Your task to perform on an android device: When is my next appointment? Image 0: 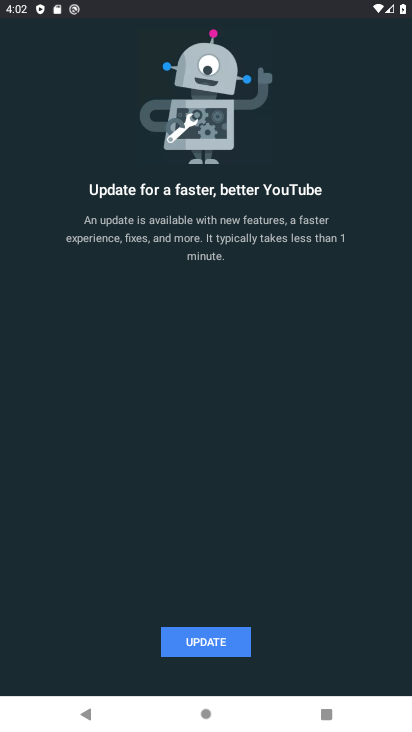
Step 0: drag from (136, 512) to (161, 147)
Your task to perform on an android device: When is my next appointment? Image 1: 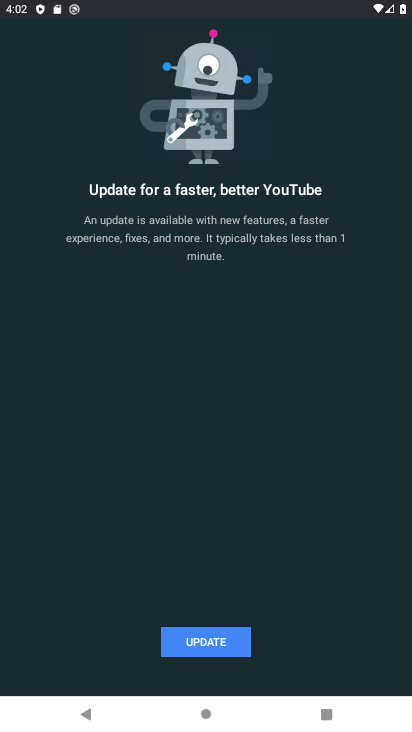
Step 1: press home button
Your task to perform on an android device: When is my next appointment? Image 2: 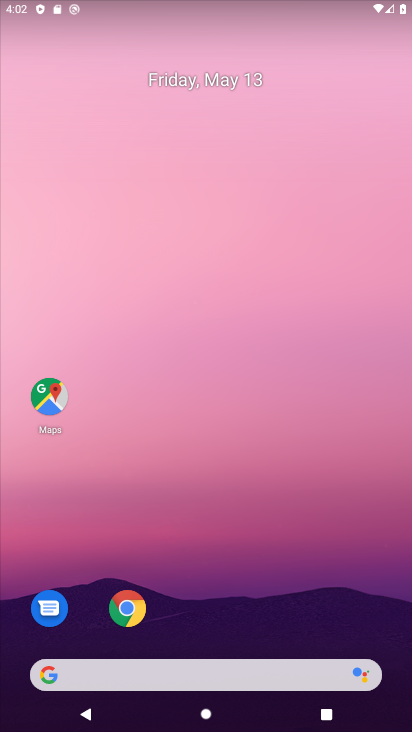
Step 2: drag from (56, 617) to (86, 43)
Your task to perform on an android device: When is my next appointment? Image 3: 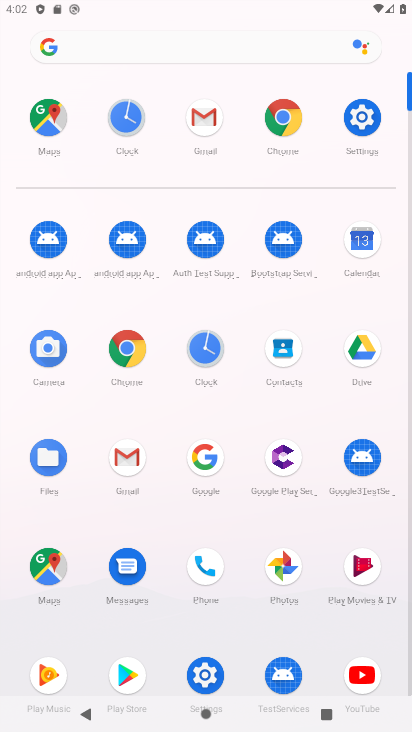
Step 3: click (371, 237)
Your task to perform on an android device: When is my next appointment? Image 4: 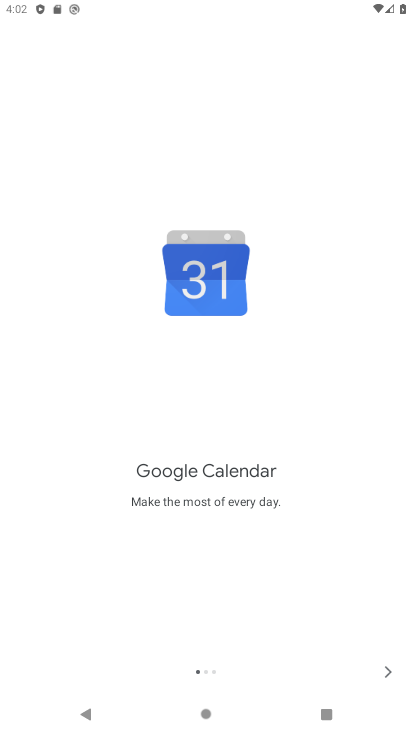
Step 4: click (389, 668)
Your task to perform on an android device: When is my next appointment? Image 5: 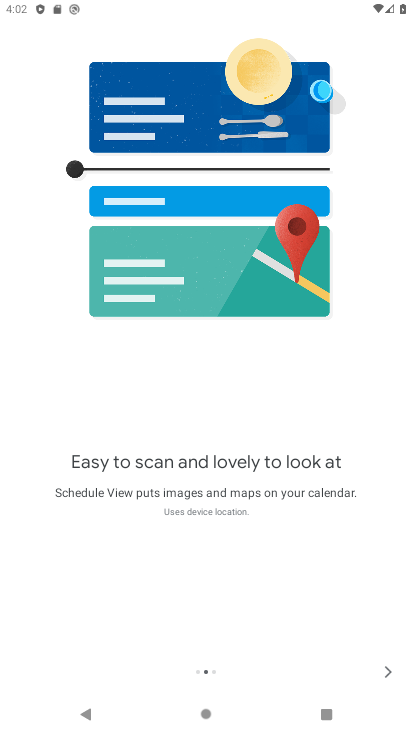
Step 5: click (389, 668)
Your task to perform on an android device: When is my next appointment? Image 6: 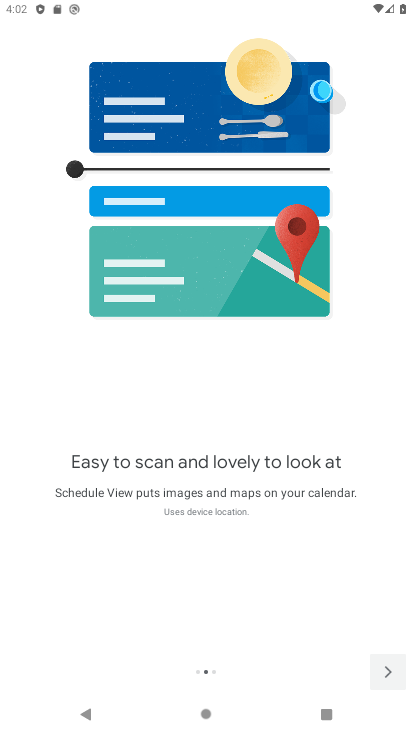
Step 6: click (389, 668)
Your task to perform on an android device: When is my next appointment? Image 7: 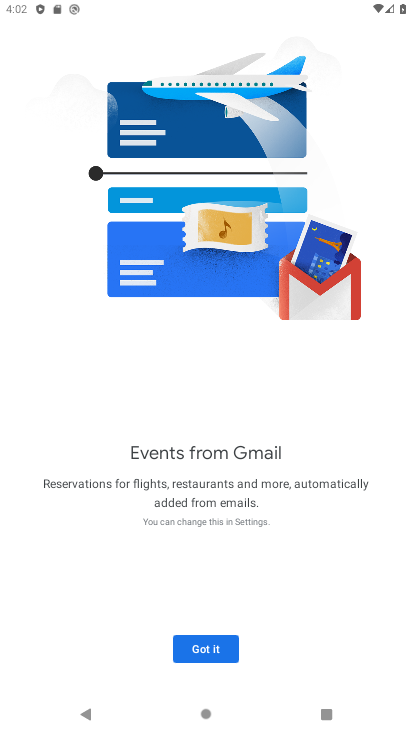
Step 7: click (219, 652)
Your task to perform on an android device: When is my next appointment? Image 8: 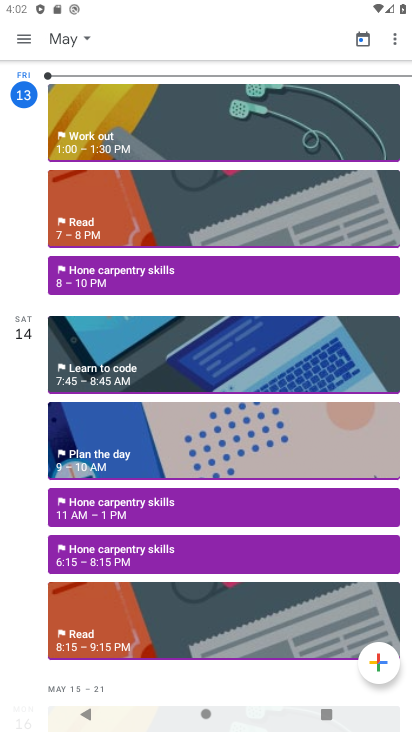
Step 8: click (90, 37)
Your task to perform on an android device: When is my next appointment? Image 9: 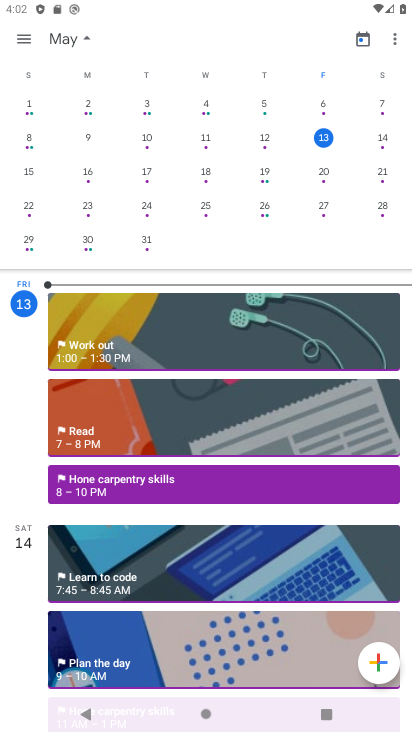
Step 9: click (327, 134)
Your task to perform on an android device: When is my next appointment? Image 10: 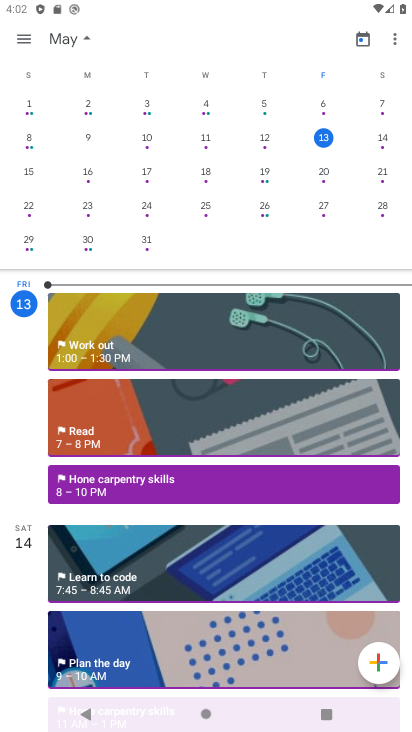
Step 10: task complete